Your task to perform on an android device: Do I have any events tomorrow? Image 0: 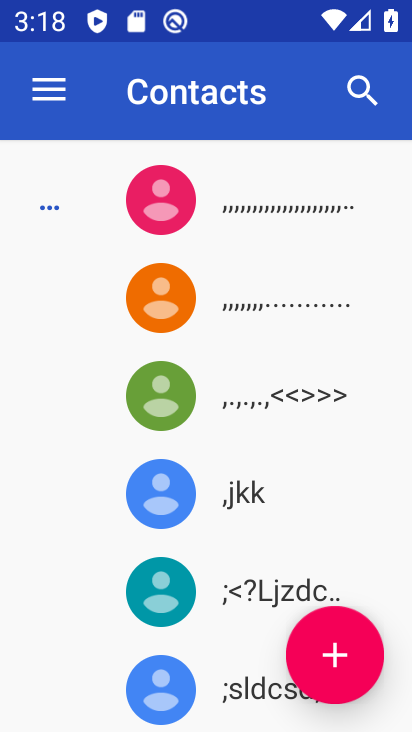
Step 0: press home button
Your task to perform on an android device: Do I have any events tomorrow? Image 1: 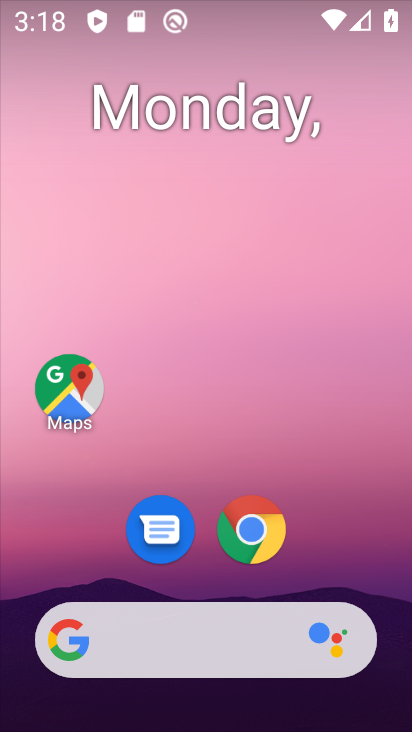
Step 1: drag from (208, 556) to (237, 193)
Your task to perform on an android device: Do I have any events tomorrow? Image 2: 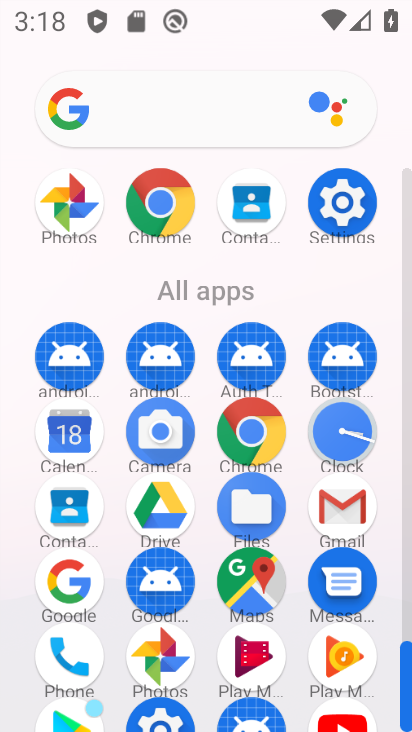
Step 2: click (69, 435)
Your task to perform on an android device: Do I have any events tomorrow? Image 3: 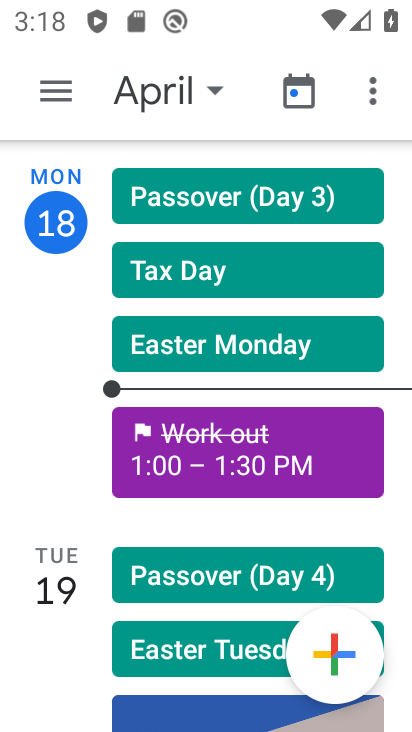
Step 3: click (54, 92)
Your task to perform on an android device: Do I have any events tomorrow? Image 4: 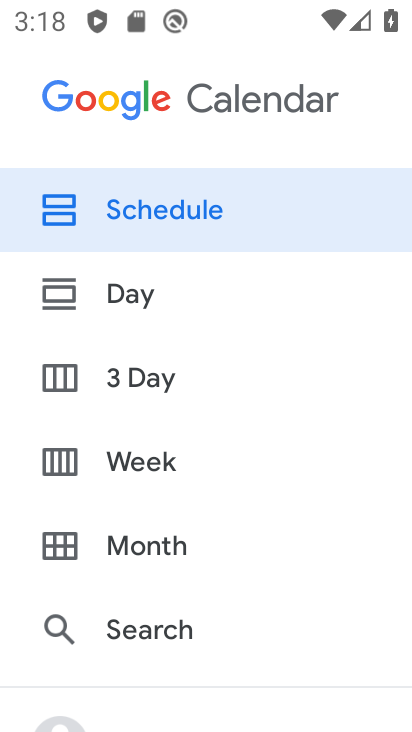
Step 4: drag from (145, 503) to (206, 97)
Your task to perform on an android device: Do I have any events tomorrow? Image 5: 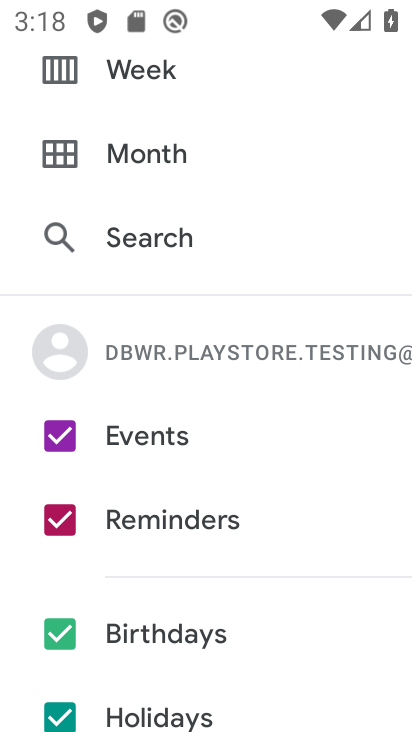
Step 5: click (72, 490)
Your task to perform on an android device: Do I have any events tomorrow? Image 6: 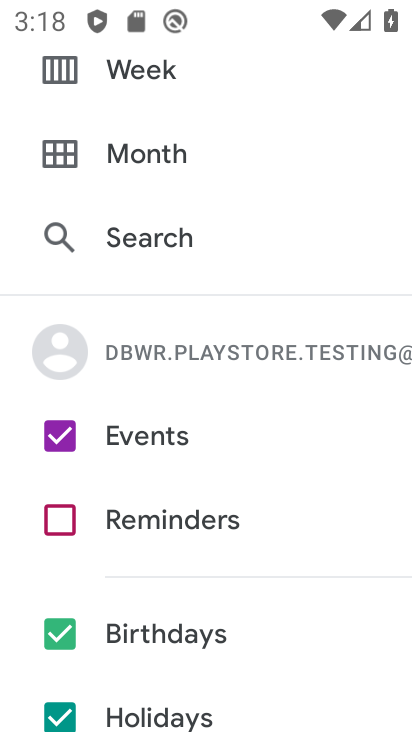
Step 6: click (60, 641)
Your task to perform on an android device: Do I have any events tomorrow? Image 7: 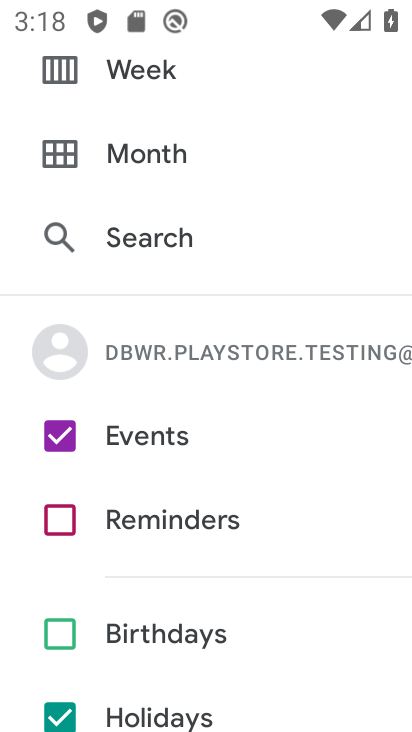
Step 7: drag from (92, 651) to (217, 71)
Your task to perform on an android device: Do I have any events tomorrow? Image 8: 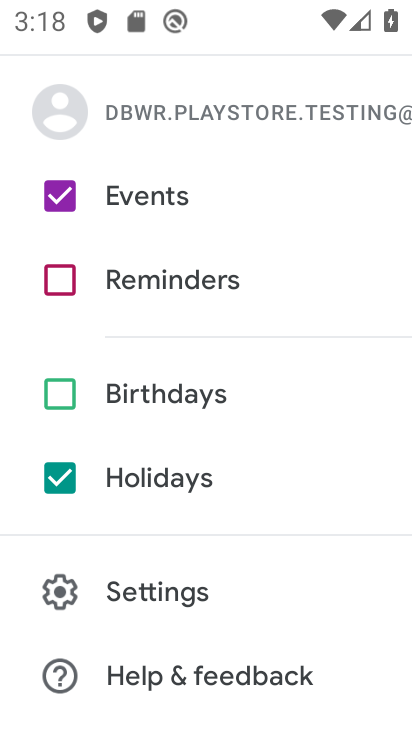
Step 8: click (50, 470)
Your task to perform on an android device: Do I have any events tomorrow? Image 9: 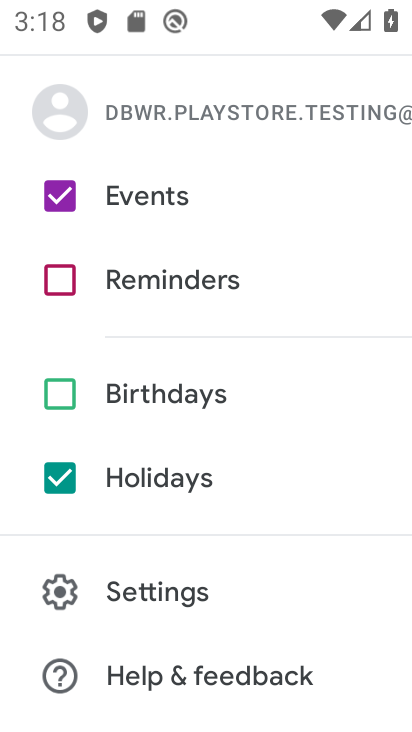
Step 9: drag from (332, 394) to (378, 433)
Your task to perform on an android device: Do I have any events tomorrow? Image 10: 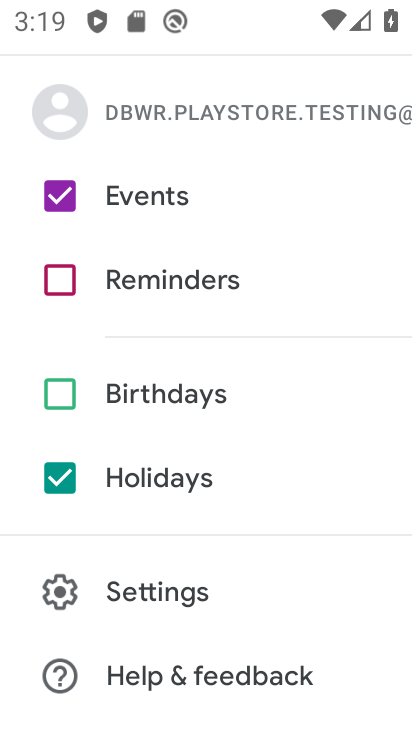
Step 10: click (70, 481)
Your task to perform on an android device: Do I have any events tomorrow? Image 11: 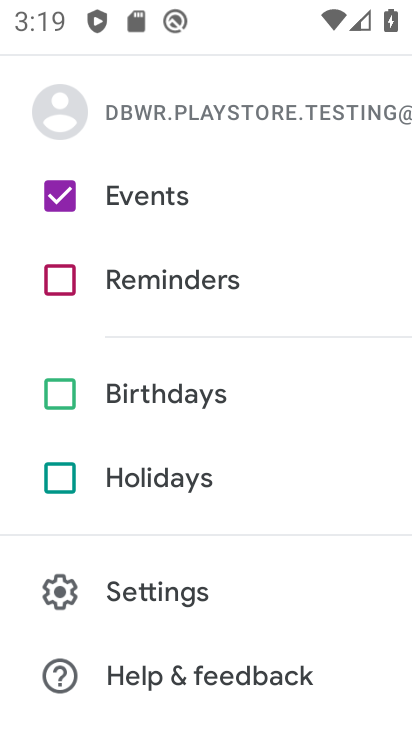
Step 11: drag from (240, 179) to (224, 495)
Your task to perform on an android device: Do I have any events tomorrow? Image 12: 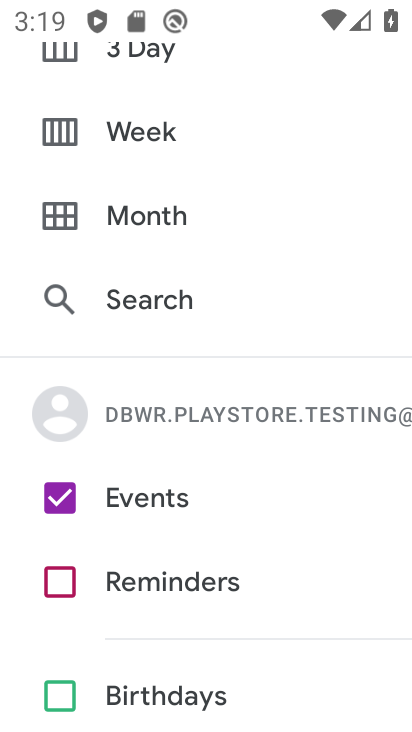
Step 12: click (146, 135)
Your task to perform on an android device: Do I have any events tomorrow? Image 13: 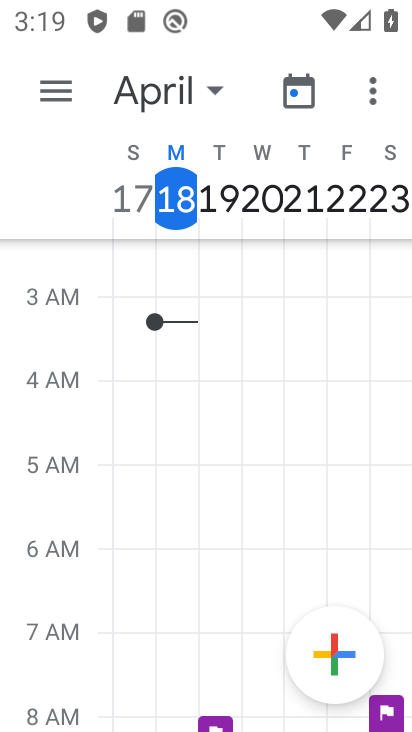
Step 13: task complete